Your task to perform on an android device: turn on data saver in the chrome app Image 0: 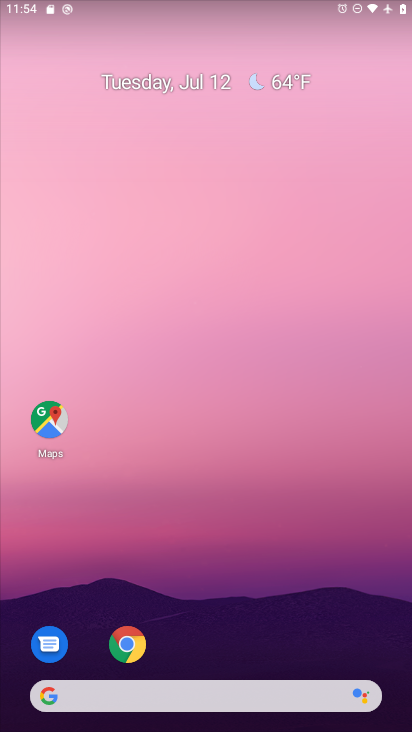
Step 0: drag from (260, 643) to (260, 103)
Your task to perform on an android device: turn on data saver in the chrome app Image 1: 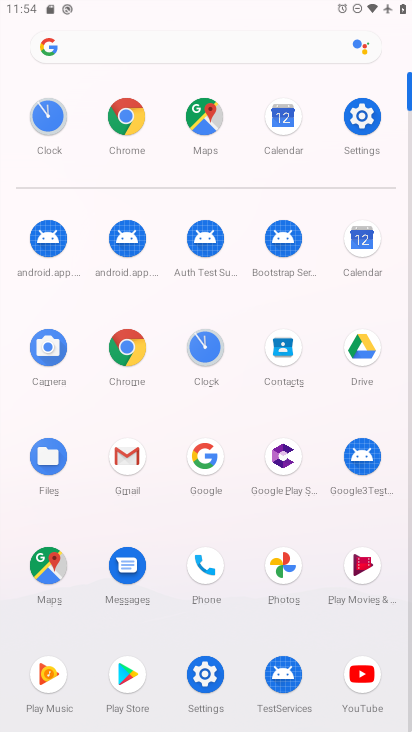
Step 1: click (131, 112)
Your task to perform on an android device: turn on data saver in the chrome app Image 2: 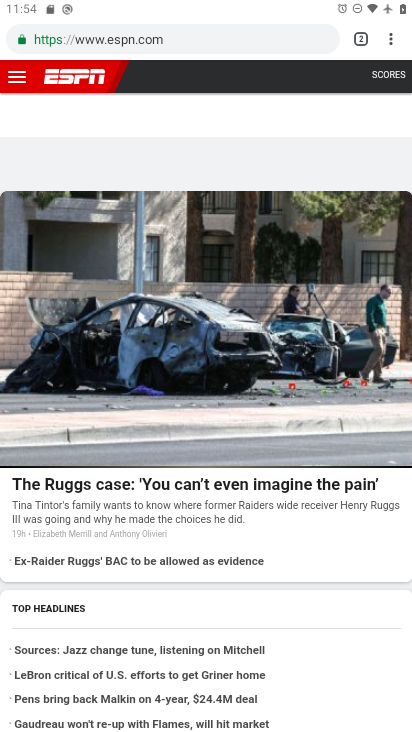
Step 2: click (389, 46)
Your task to perform on an android device: turn on data saver in the chrome app Image 3: 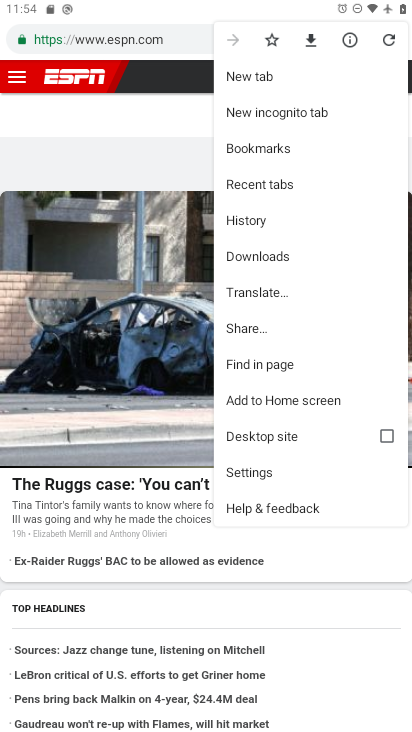
Step 3: click (279, 473)
Your task to perform on an android device: turn on data saver in the chrome app Image 4: 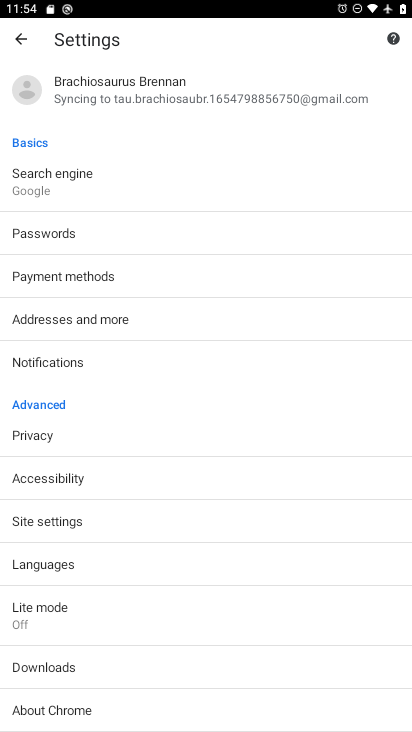
Step 4: click (128, 605)
Your task to perform on an android device: turn on data saver in the chrome app Image 5: 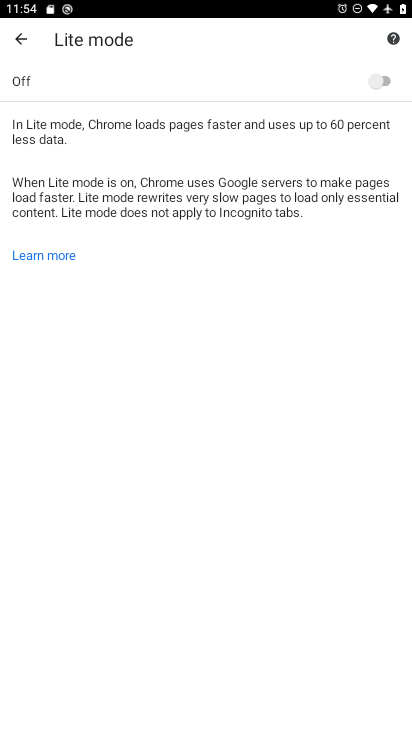
Step 5: click (358, 85)
Your task to perform on an android device: turn on data saver in the chrome app Image 6: 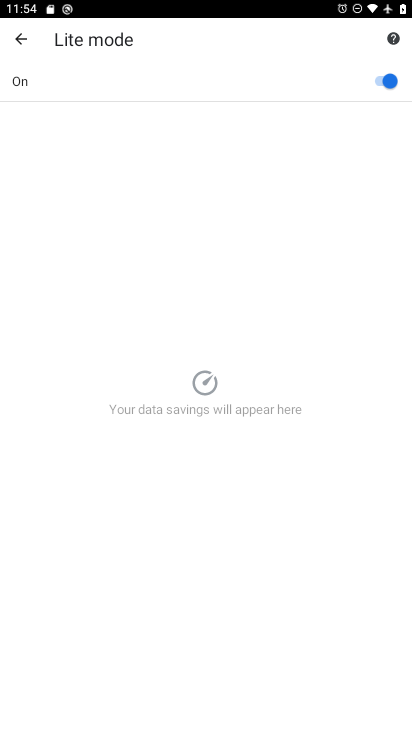
Step 6: task complete